Your task to perform on an android device: change the clock style Image 0: 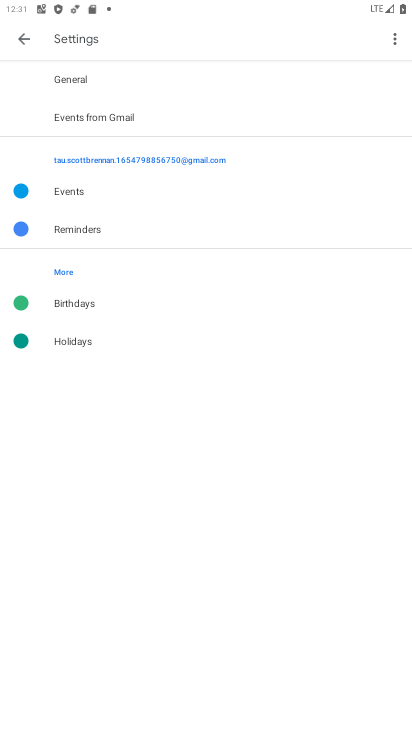
Step 0: press home button
Your task to perform on an android device: change the clock style Image 1: 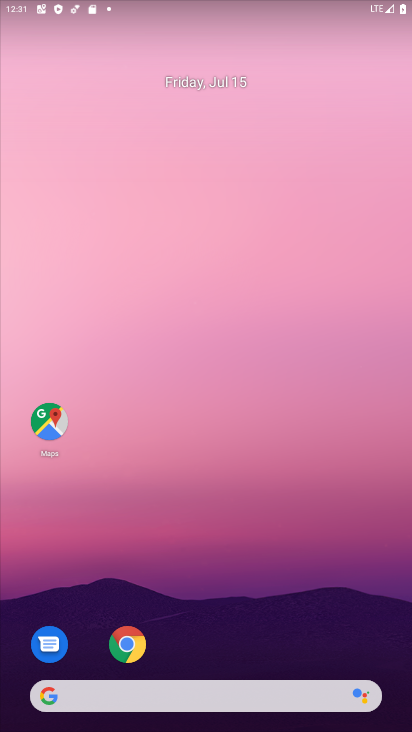
Step 1: drag from (1, 721) to (237, 34)
Your task to perform on an android device: change the clock style Image 2: 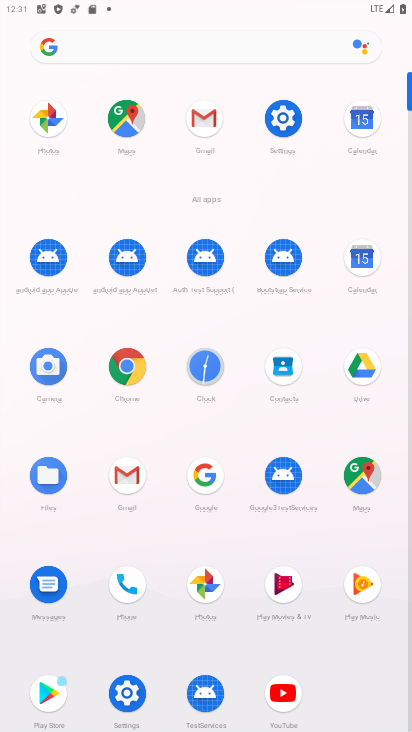
Step 2: click (193, 360)
Your task to perform on an android device: change the clock style Image 3: 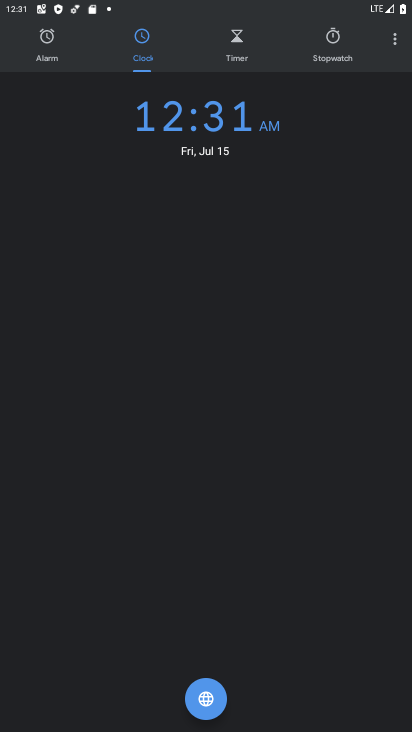
Step 3: click (394, 40)
Your task to perform on an android device: change the clock style Image 4: 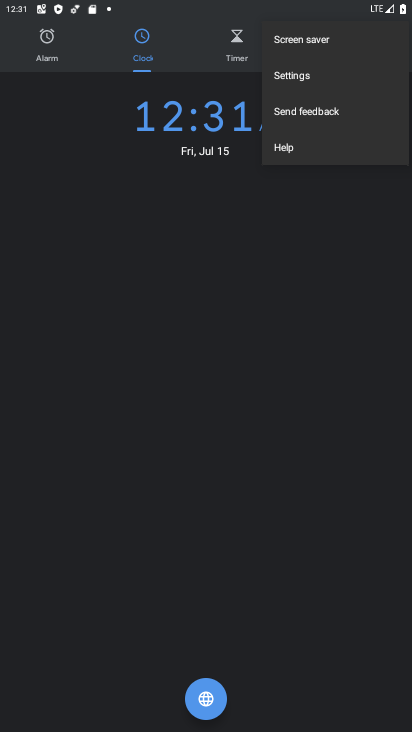
Step 4: click (323, 85)
Your task to perform on an android device: change the clock style Image 5: 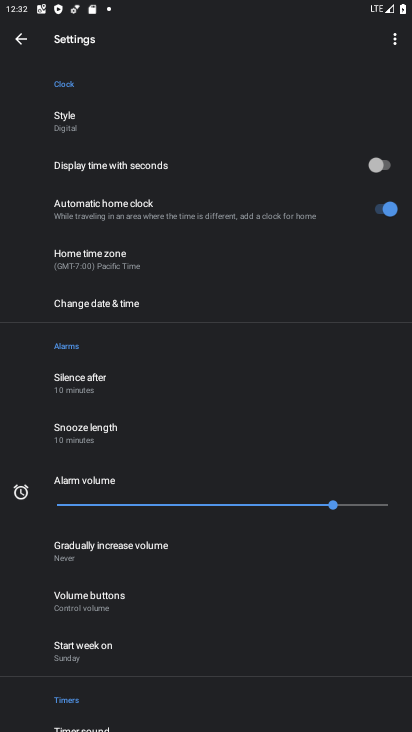
Step 5: click (87, 118)
Your task to perform on an android device: change the clock style Image 6: 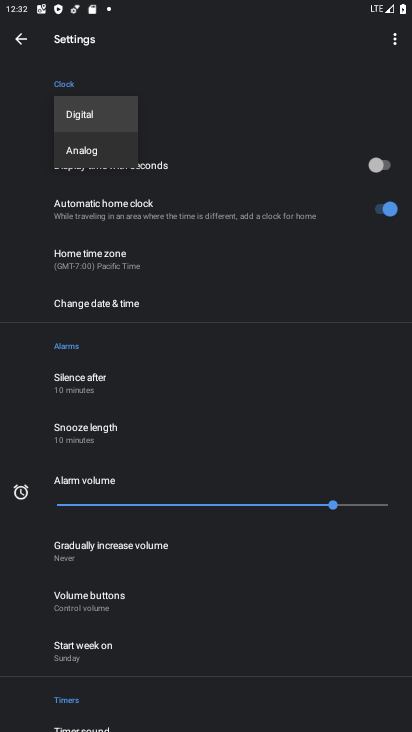
Step 6: click (91, 160)
Your task to perform on an android device: change the clock style Image 7: 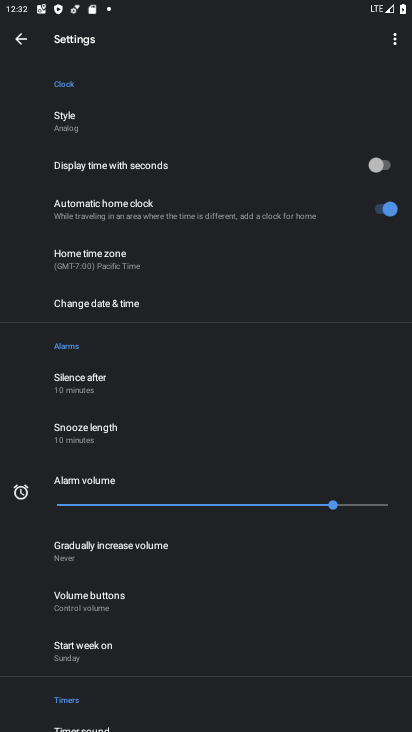
Step 7: task complete